Your task to perform on an android device: toggle wifi Image 0: 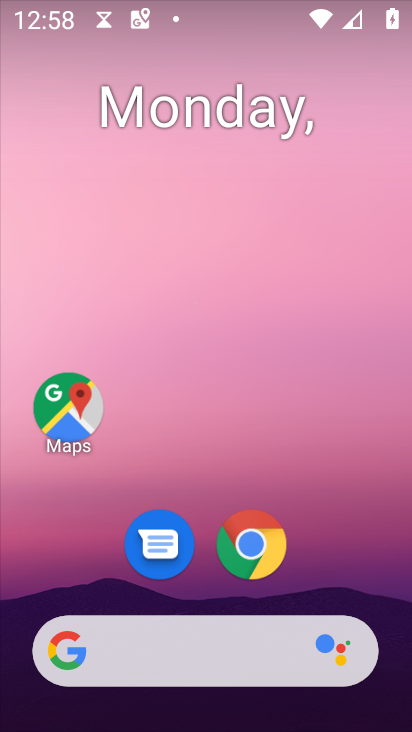
Step 0: drag from (334, 501) to (349, 232)
Your task to perform on an android device: toggle wifi Image 1: 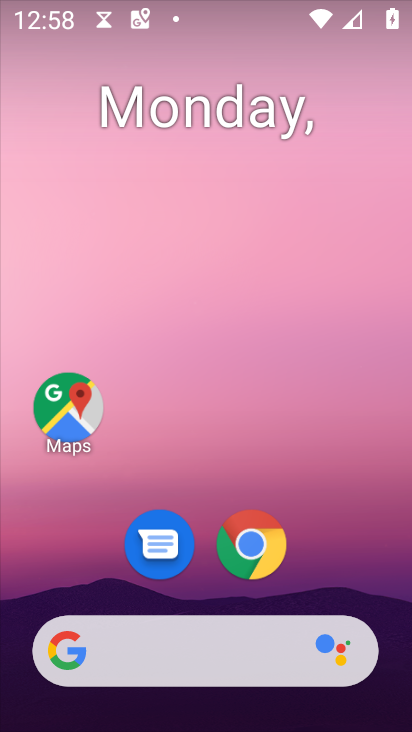
Step 1: drag from (316, 571) to (315, 244)
Your task to perform on an android device: toggle wifi Image 2: 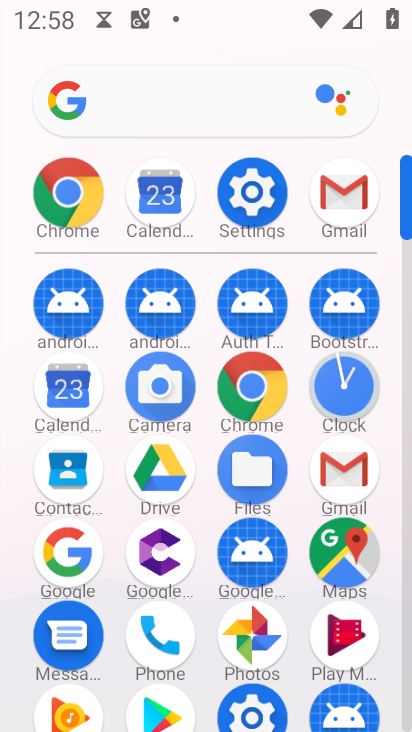
Step 2: click (240, 202)
Your task to perform on an android device: toggle wifi Image 3: 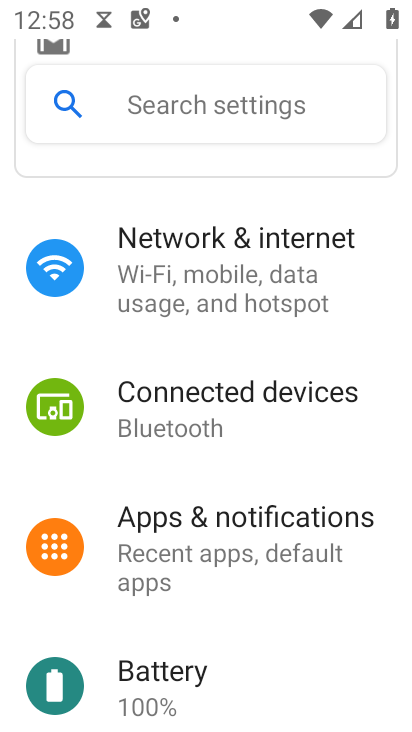
Step 3: click (208, 265)
Your task to perform on an android device: toggle wifi Image 4: 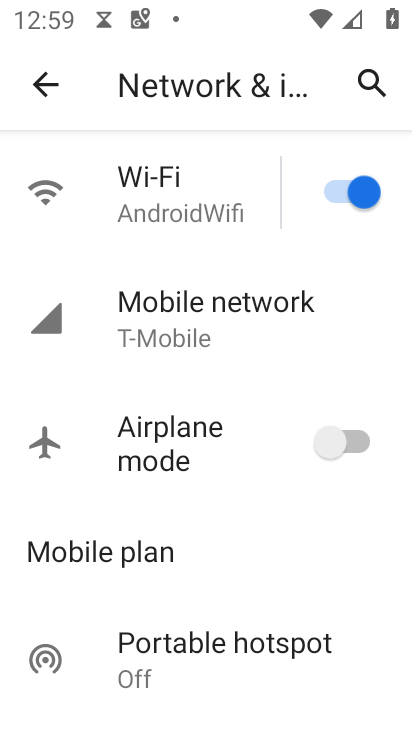
Step 4: task complete